Your task to perform on an android device: move an email to a new category in the gmail app Image 0: 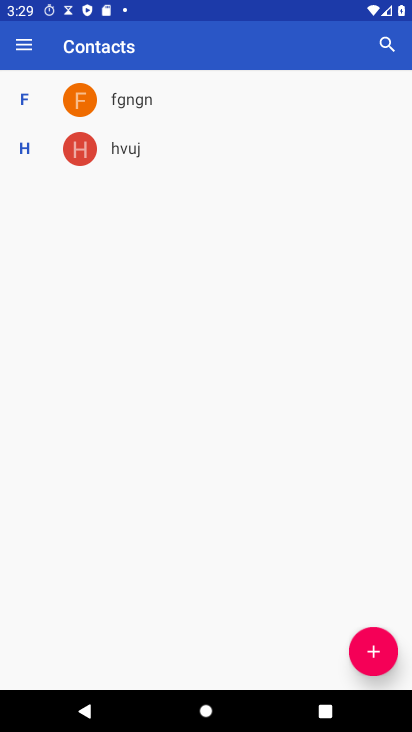
Step 0: press home button
Your task to perform on an android device: move an email to a new category in the gmail app Image 1: 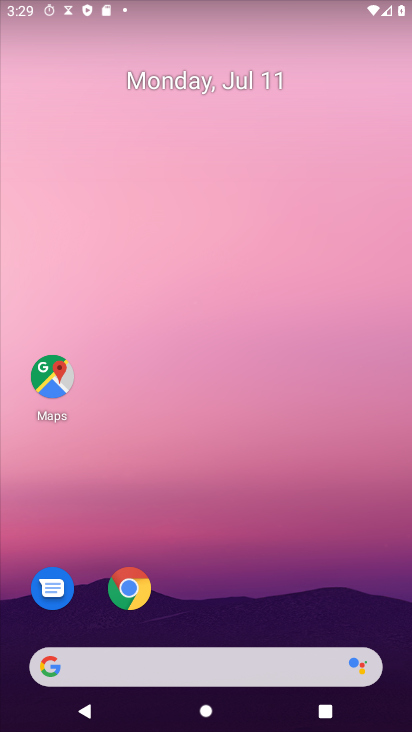
Step 1: drag from (260, 620) to (214, 6)
Your task to perform on an android device: move an email to a new category in the gmail app Image 2: 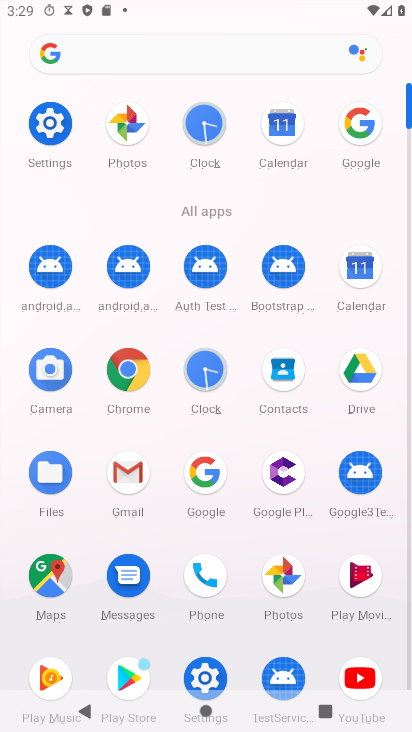
Step 2: click (124, 474)
Your task to perform on an android device: move an email to a new category in the gmail app Image 3: 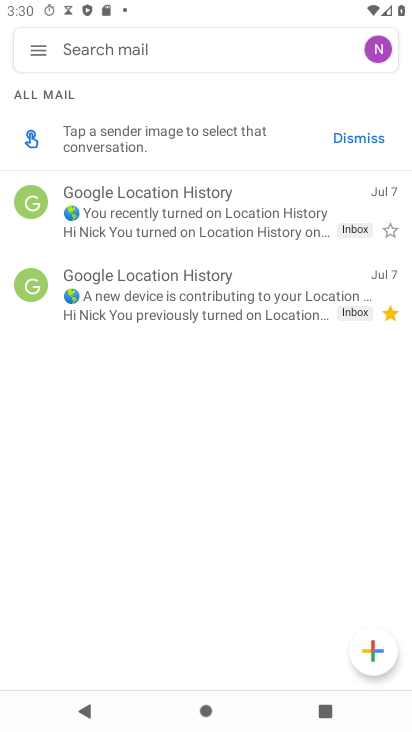
Step 3: click (137, 216)
Your task to perform on an android device: move an email to a new category in the gmail app Image 4: 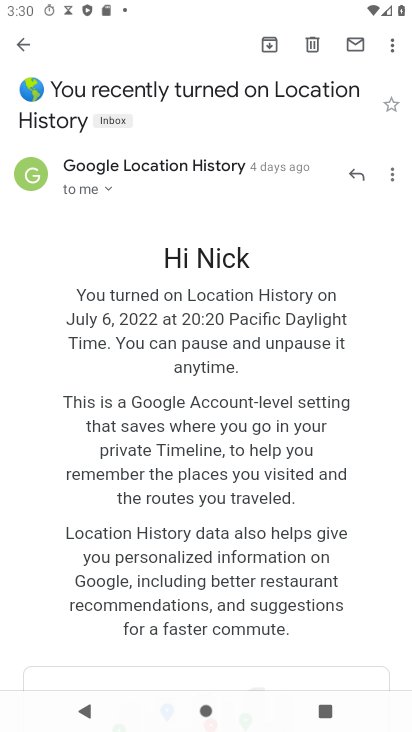
Step 4: click (391, 52)
Your task to perform on an android device: move an email to a new category in the gmail app Image 5: 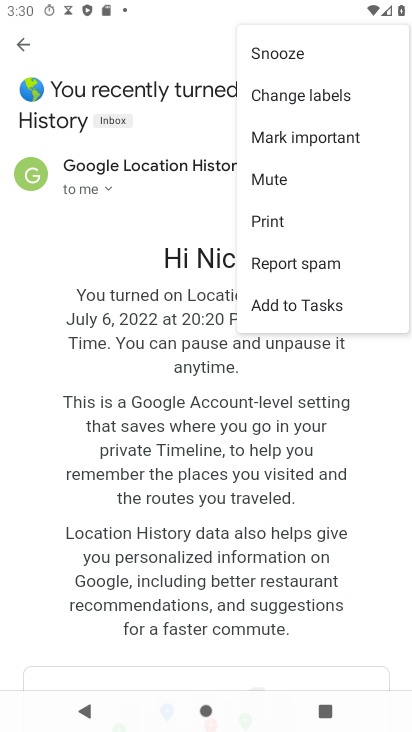
Step 5: click (351, 136)
Your task to perform on an android device: move an email to a new category in the gmail app Image 6: 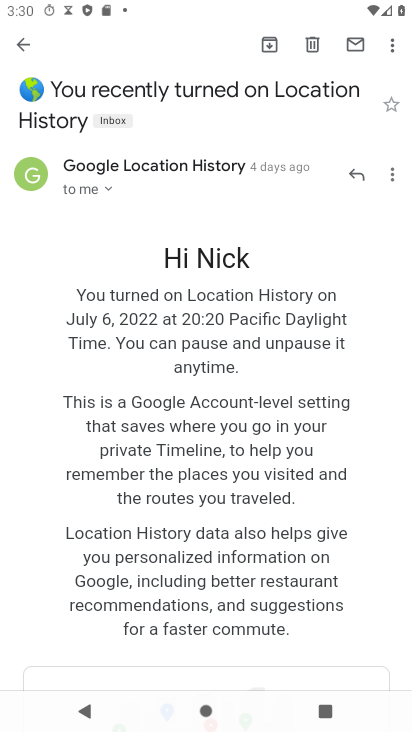
Step 6: task complete